Your task to perform on an android device: turn notification dots off Image 0: 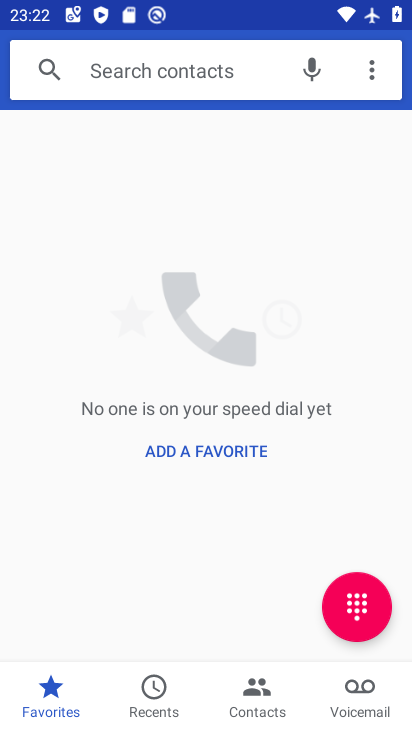
Step 0: press back button
Your task to perform on an android device: turn notification dots off Image 1: 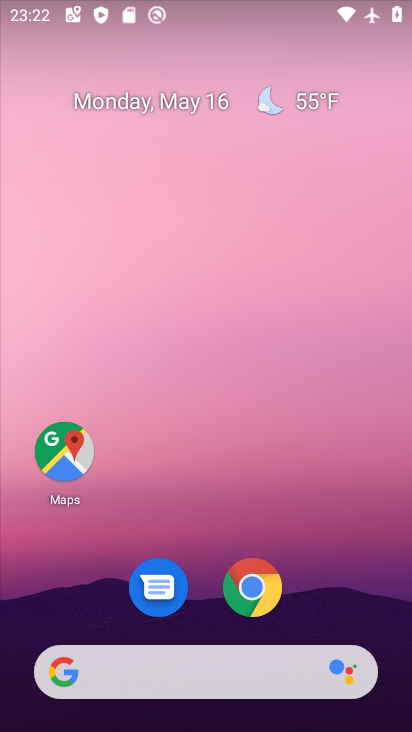
Step 1: drag from (341, 601) to (259, 32)
Your task to perform on an android device: turn notification dots off Image 2: 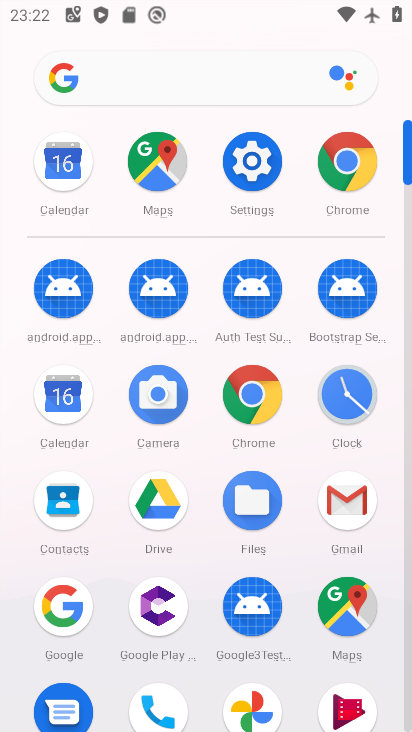
Step 2: click (254, 155)
Your task to perform on an android device: turn notification dots off Image 3: 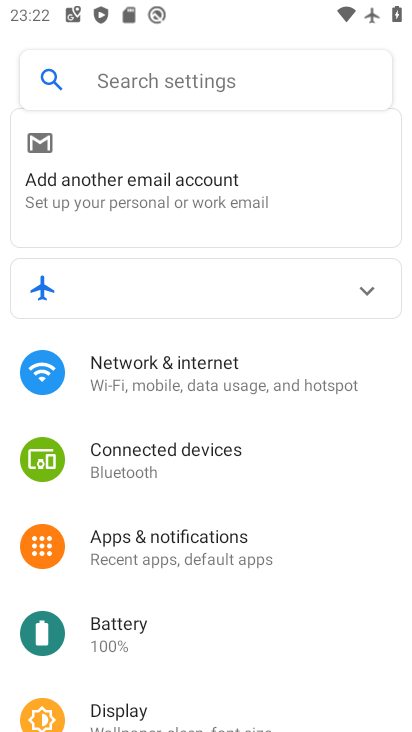
Step 3: click (215, 535)
Your task to perform on an android device: turn notification dots off Image 4: 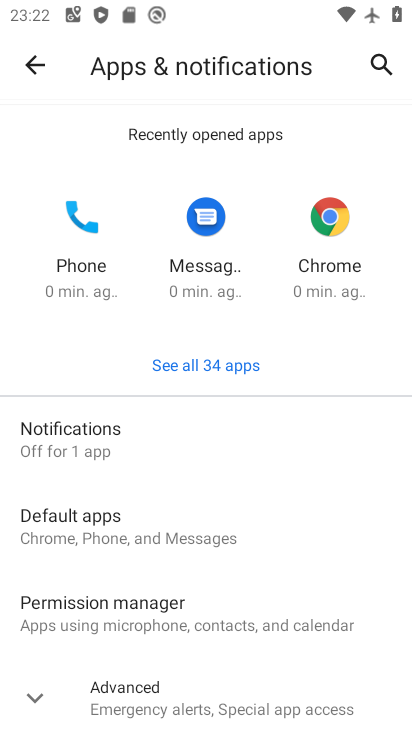
Step 4: click (126, 418)
Your task to perform on an android device: turn notification dots off Image 5: 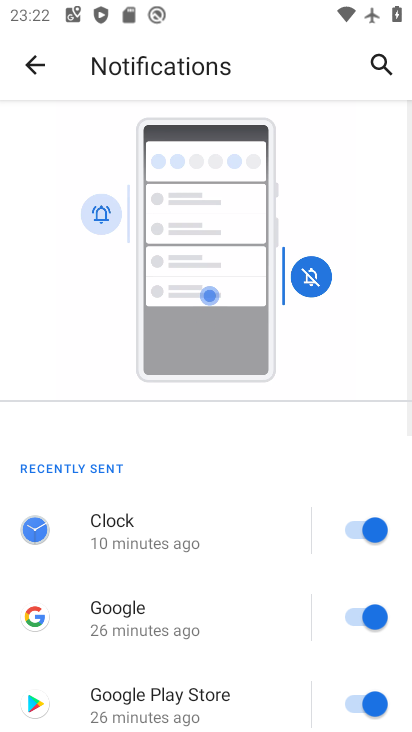
Step 5: drag from (187, 615) to (174, 104)
Your task to perform on an android device: turn notification dots off Image 6: 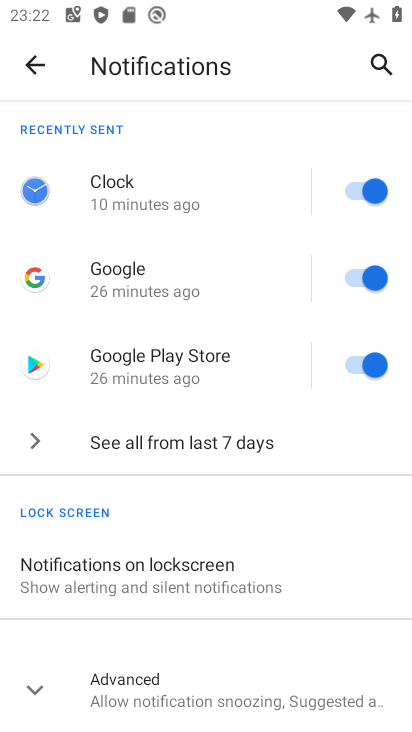
Step 6: click (128, 684)
Your task to perform on an android device: turn notification dots off Image 7: 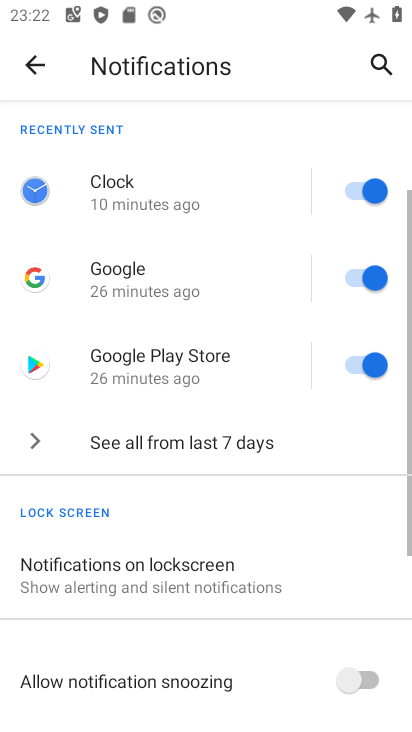
Step 7: drag from (211, 645) to (216, 139)
Your task to perform on an android device: turn notification dots off Image 8: 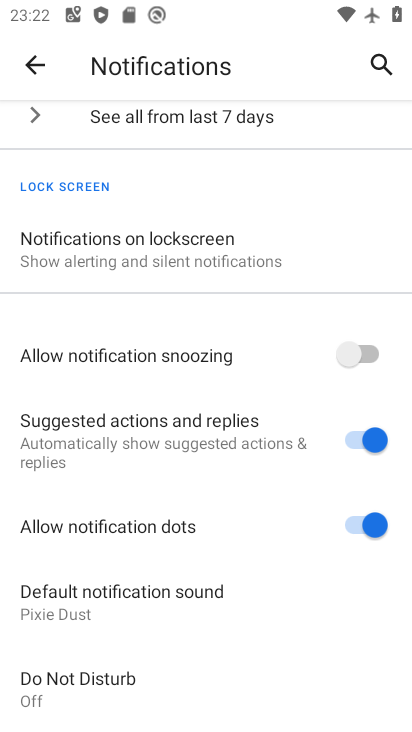
Step 8: click (362, 521)
Your task to perform on an android device: turn notification dots off Image 9: 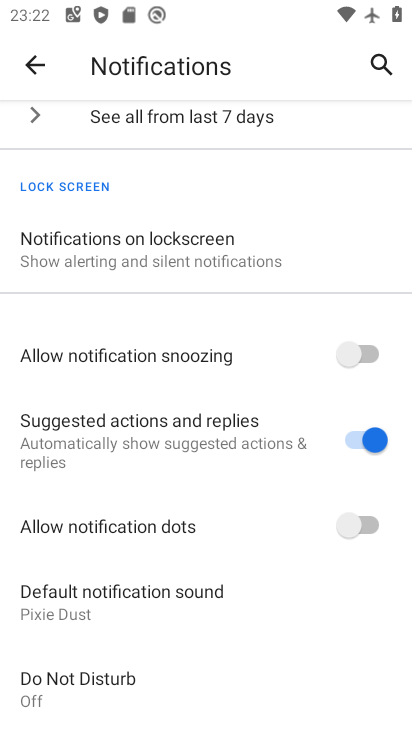
Step 9: task complete